Your task to perform on an android device: When is my next meeting? Image 0: 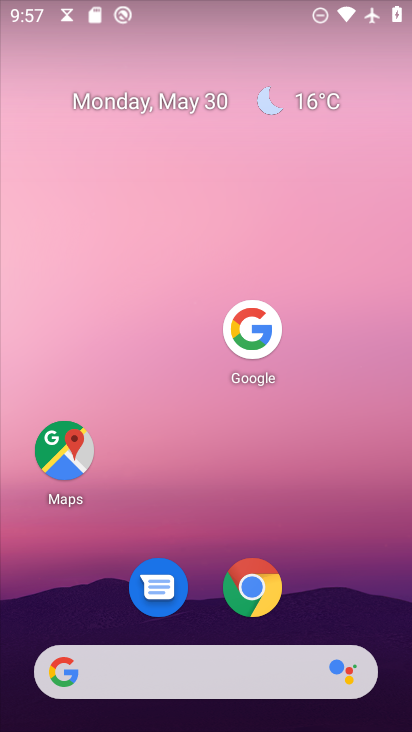
Step 0: press home button
Your task to perform on an android device: When is my next meeting? Image 1: 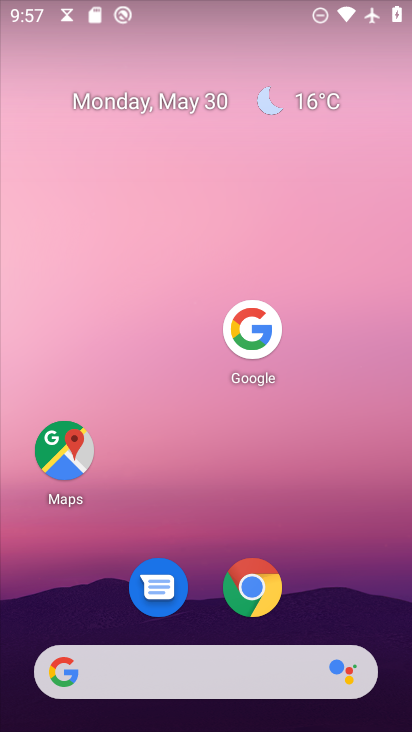
Step 1: drag from (172, 672) to (300, 111)
Your task to perform on an android device: When is my next meeting? Image 2: 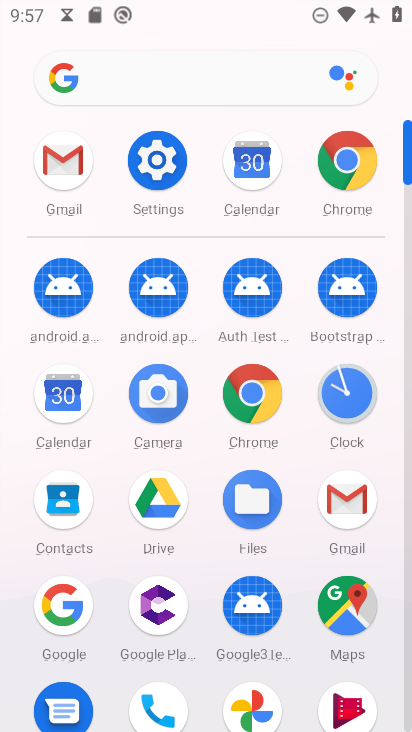
Step 2: click (261, 173)
Your task to perform on an android device: When is my next meeting? Image 3: 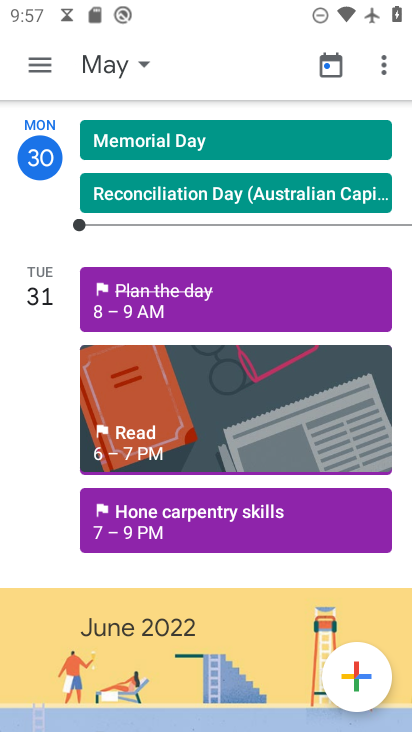
Step 3: task complete